Your task to perform on an android device: search for starred emails in the gmail app Image 0: 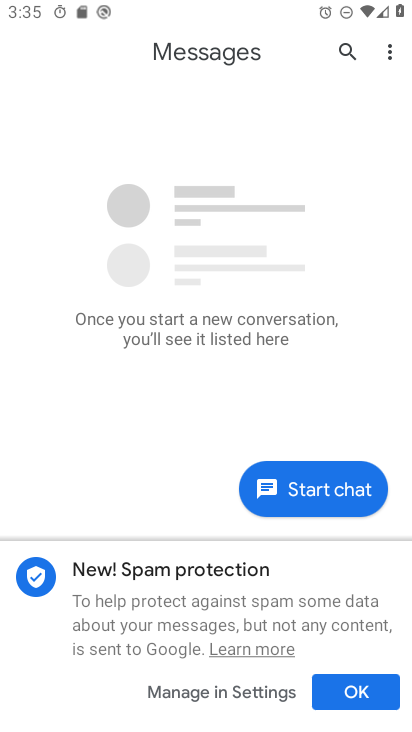
Step 0: press home button
Your task to perform on an android device: search for starred emails in the gmail app Image 1: 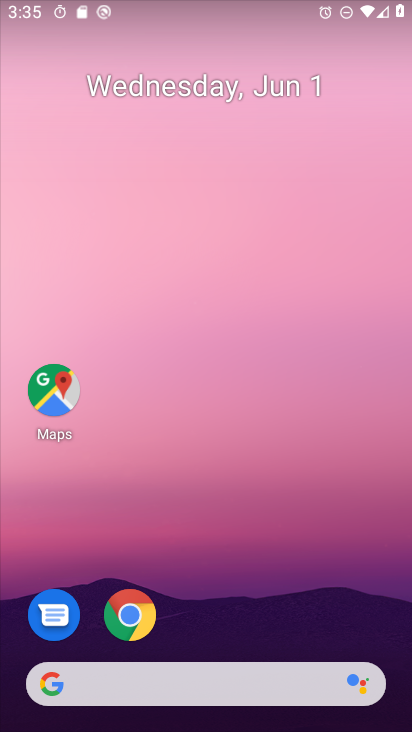
Step 1: drag from (264, 624) to (223, 79)
Your task to perform on an android device: search for starred emails in the gmail app Image 2: 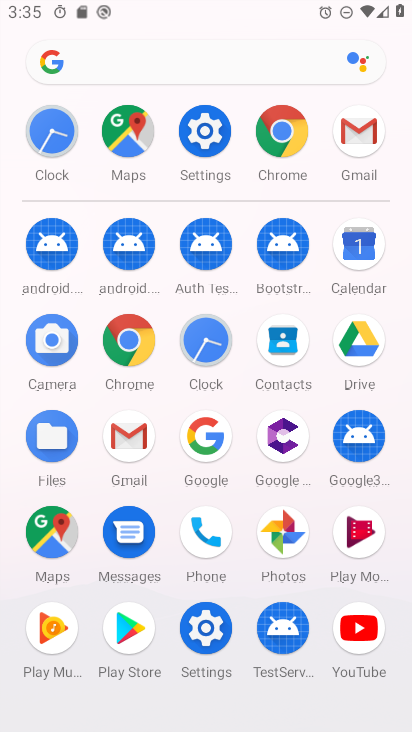
Step 2: click (126, 435)
Your task to perform on an android device: search for starred emails in the gmail app Image 3: 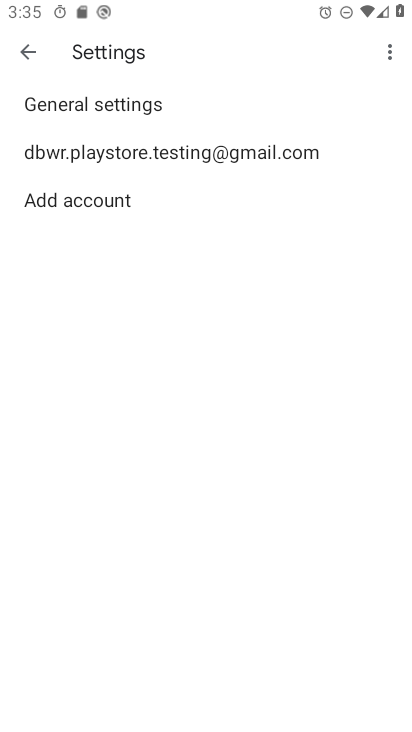
Step 3: click (34, 57)
Your task to perform on an android device: search for starred emails in the gmail app Image 4: 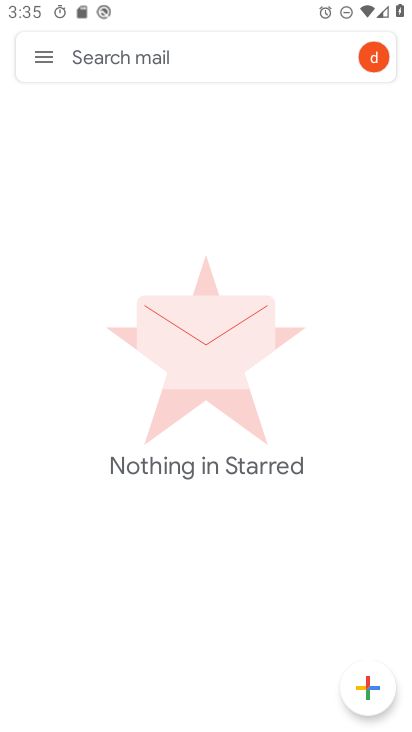
Step 4: click (31, 56)
Your task to perform on an android device: search for starred emails in the gmail app Image 5: 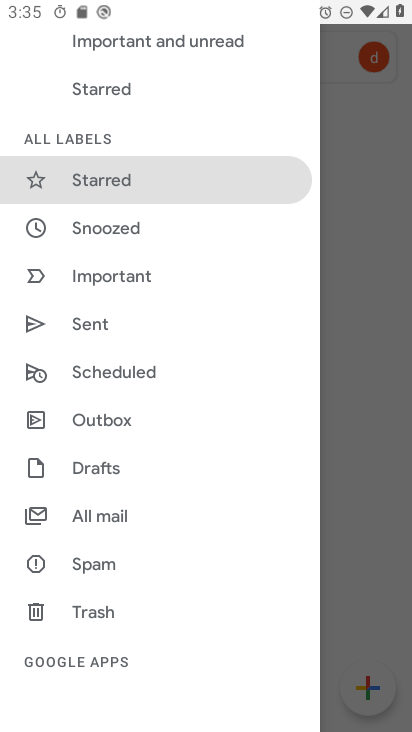
Step 5: click (151, 185)
Your task to perform on an android device: search for starred emails in the gmail app Image 6: 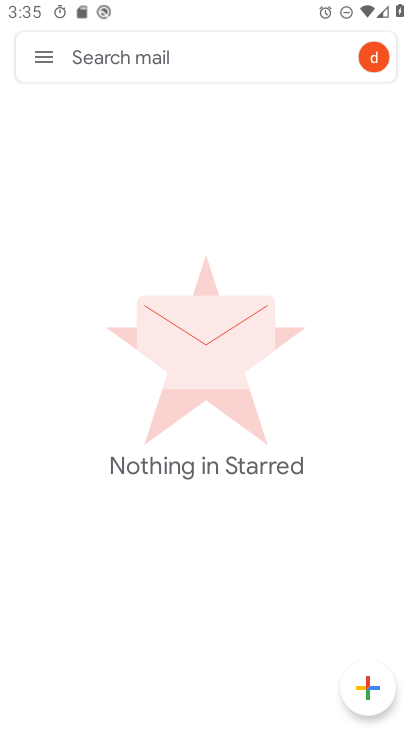
Step 6: task complete